Your task to perform on an android device: check storage Image 0: 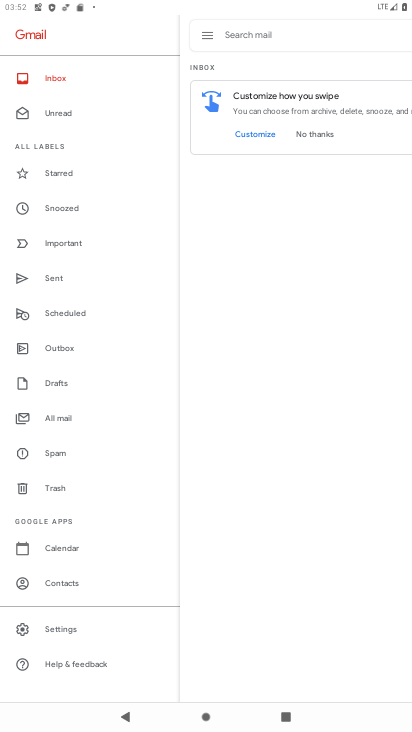
Step 0: press home button
Your task to perform on an android device: check storage Image 1: 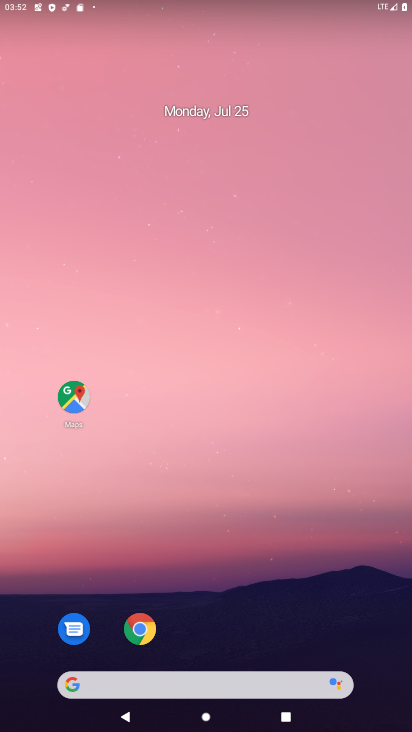
Step 1: drag from (300, 657) to (228, 0)
Your task to perform on an android device: check storage Image 2: 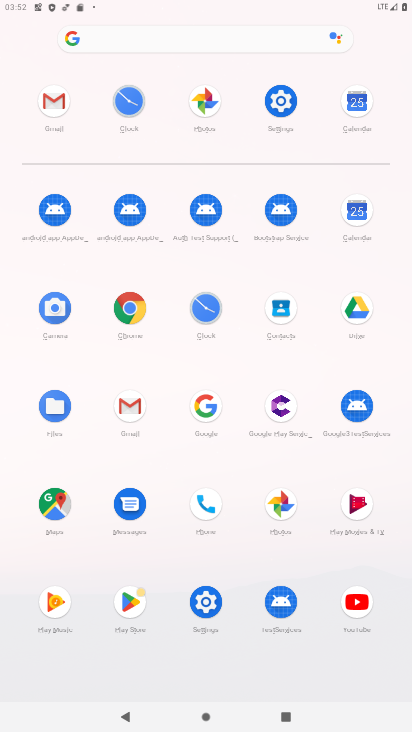
Step 2: click (279, 102)
Your task to perform on an android device: check storage Image 3: 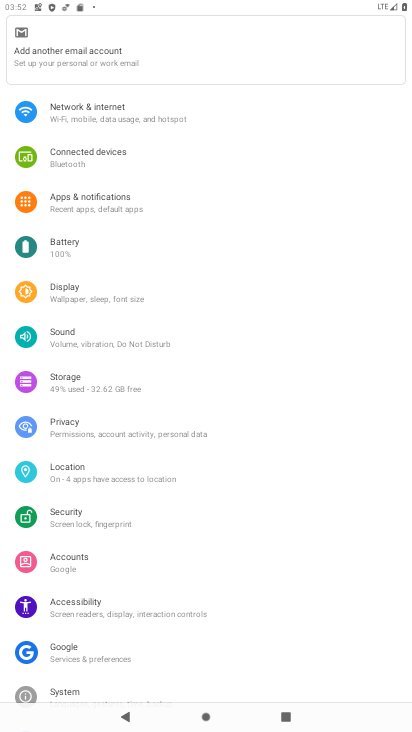
Step 3: click (75, 381)
Your task to perform on an android device: check storage Image 4: 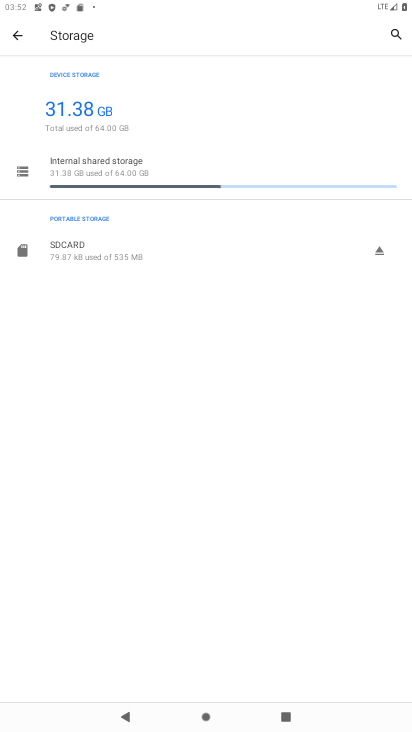
Step 4: click (103, 160)
Your task to perform on an android device: check storage Image 5: 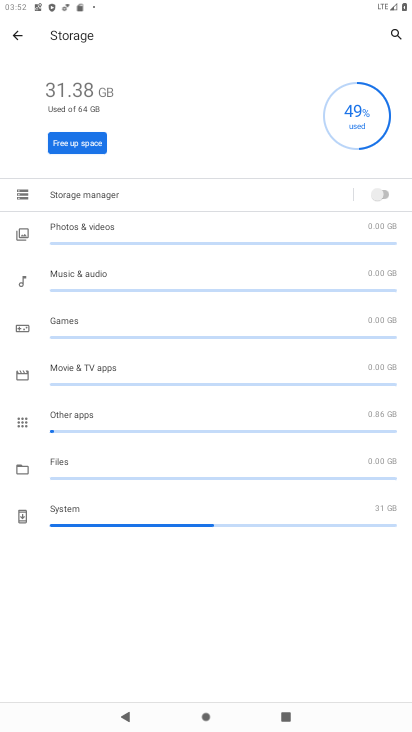
Step 5: task complete